Your task to perform on an android device: Do I have any events tomorrow? Image 0: 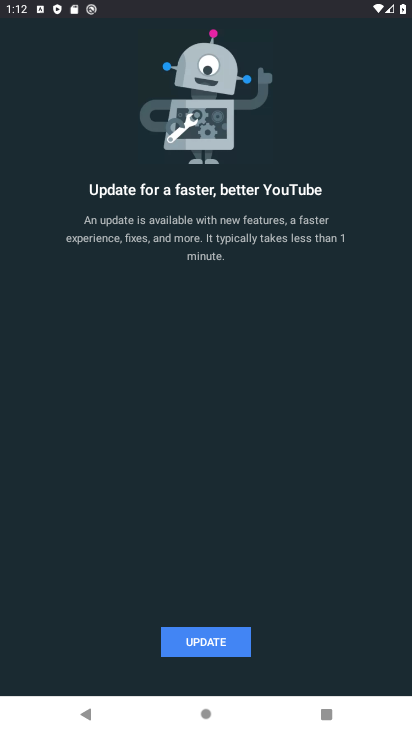
Step 0: press home button
Your task to perform on an android device: Do I have any events tomorrow? Image 1: 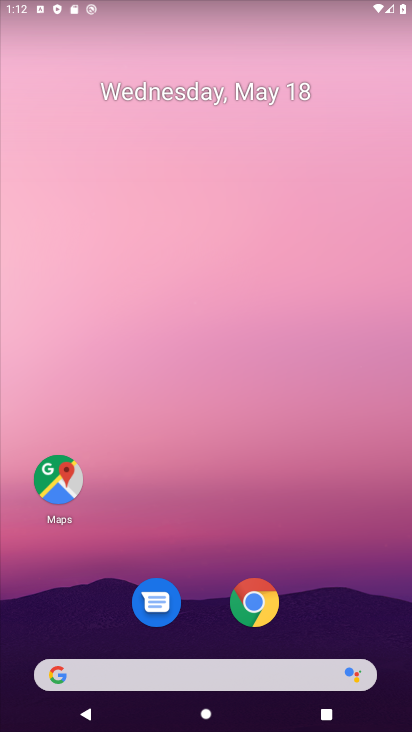
Step 1: drag from (269, 600) to (286, 42)
Your task to perform on an android device: Do I have any events tomorrow? Image 2: 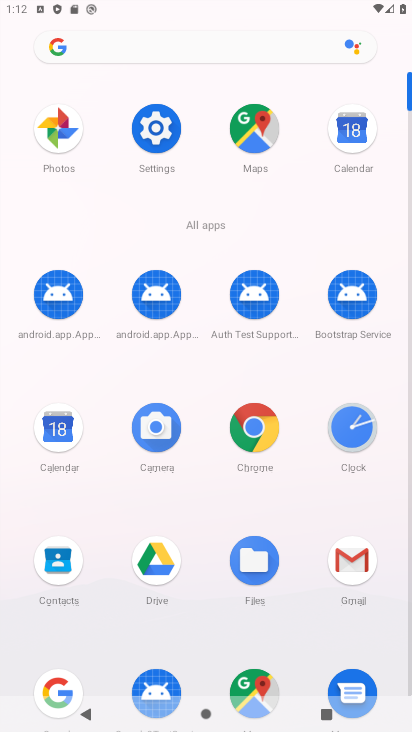
Step 2: click (56, 437)
Your task to perform on an android device: Do I have any events tomorrow? Image 3: 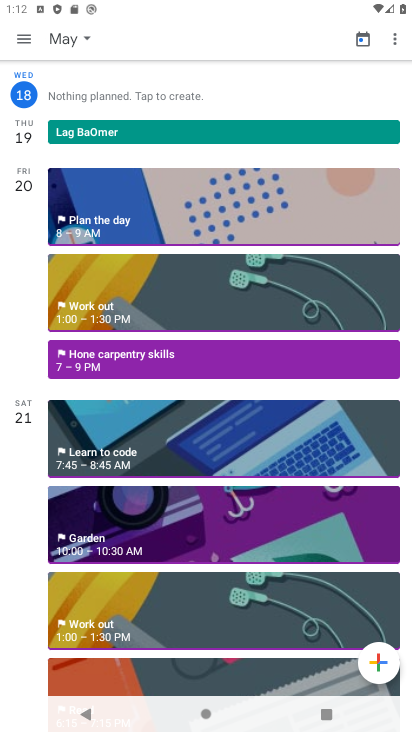
Step 3: task complete